Your task to perform on an android device: Open battery settings Image 0: 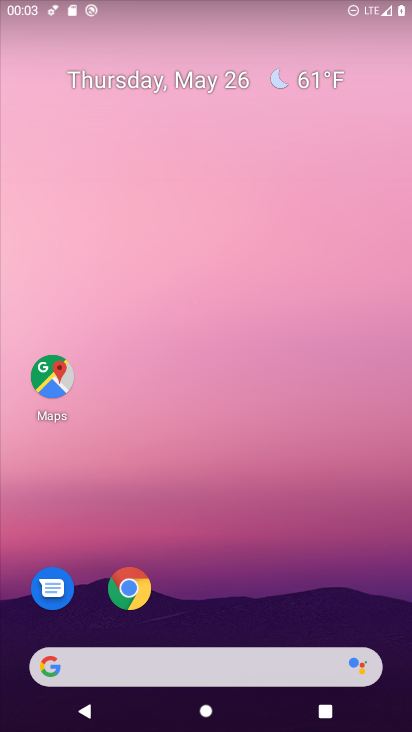
Step 0: drag from (278, 408) to (245, 50)
Your task to perform on an android device: Open battery settings Image 1: 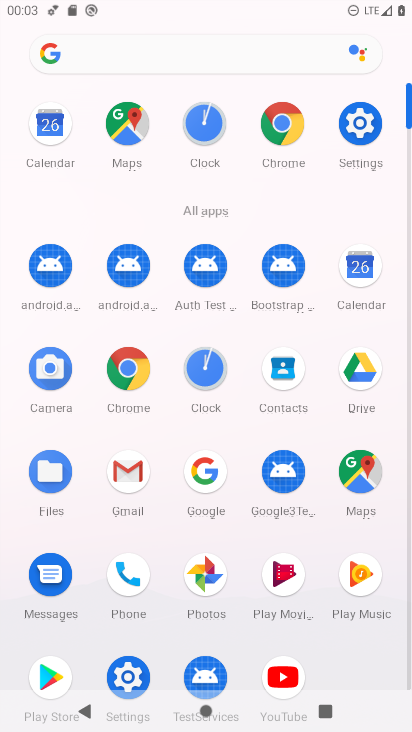
Step 1: click (361, 177)
Your task to perform on an android device: Open battery settings Image 2: 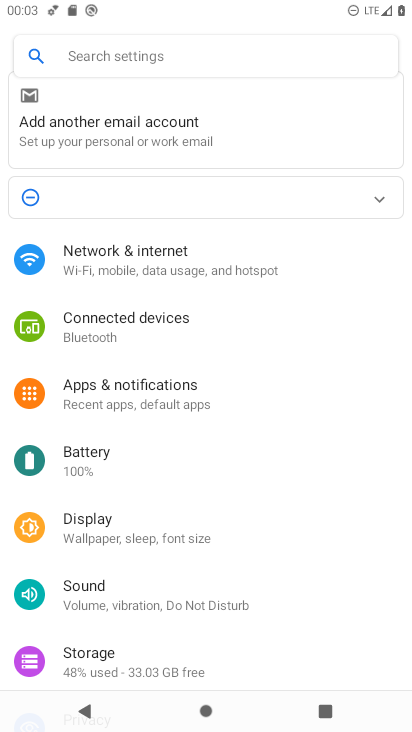
Step 2: click (77, 460)
Your task to perform on an android device: Open battery settings Image 3: 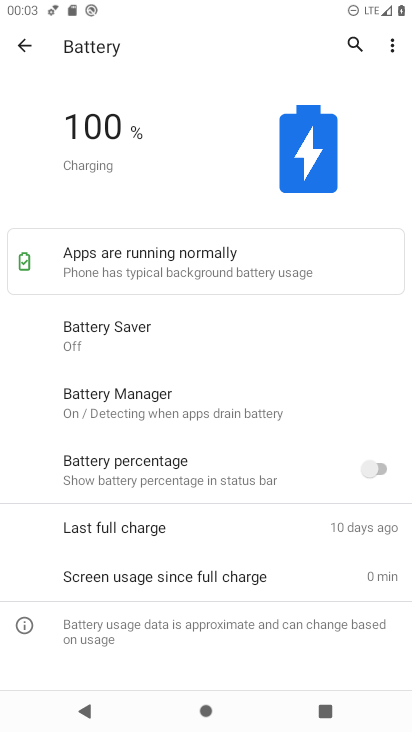
Step 3: task complete